Your task to perform on an android device: Open accessibility settings Image 0: 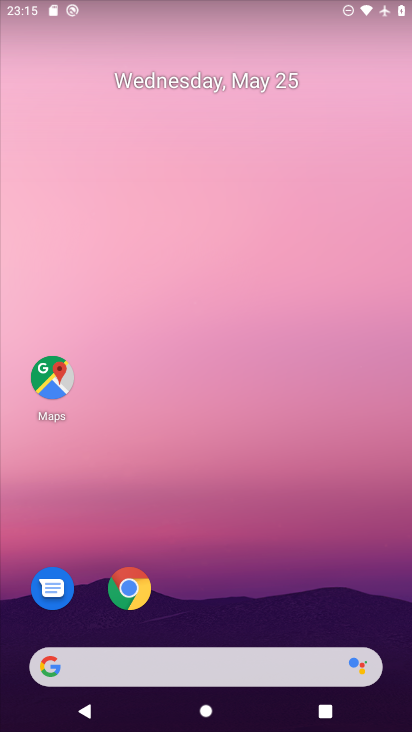
Step 0: drag from (285, 579) to (265, 195)
Your task to perform on an android device: Open accessibility settings Image 1: 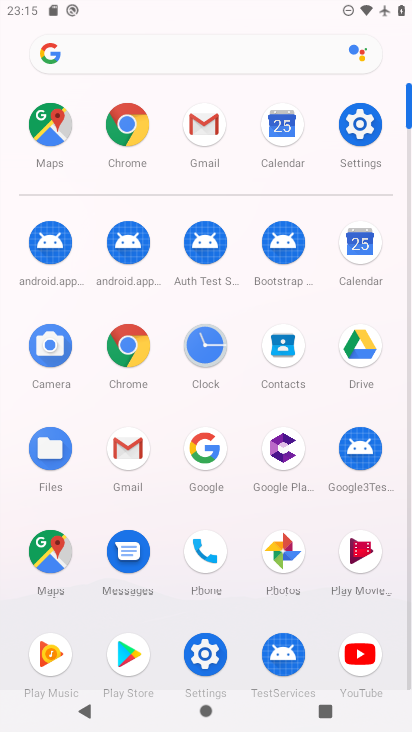
Step 1: click (348, 116)
Your task to perform on an android device: Open accessibility settings Image 2: 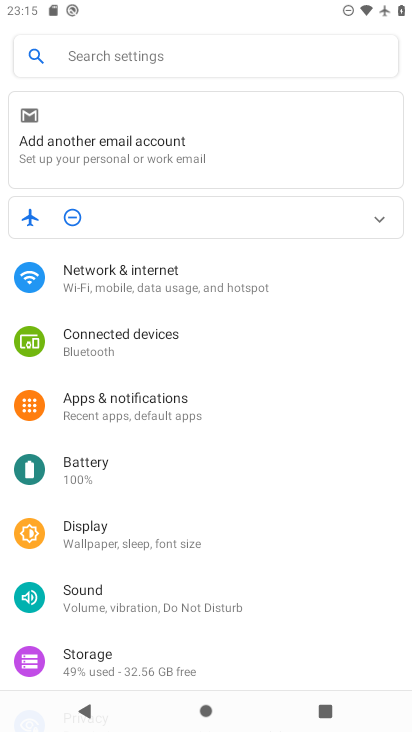
Step 2: drag from (197, 630) to (285, 52)
Your task to perform on an android device: Open accessibility settings Image 3: 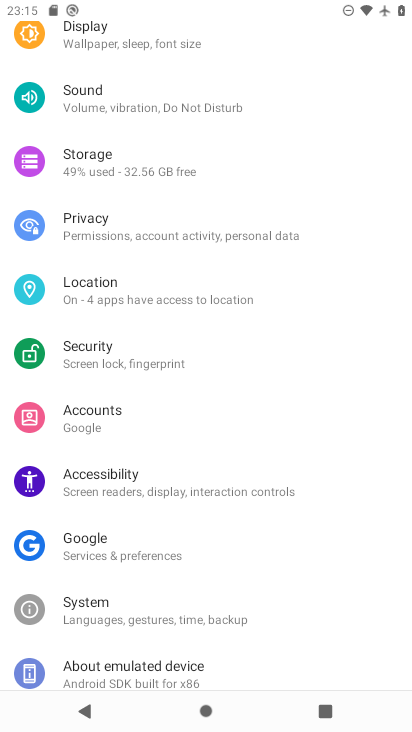
Step 3: click (175, 480)
Your task to perform on an android device: Open accessibility settings Image 4: 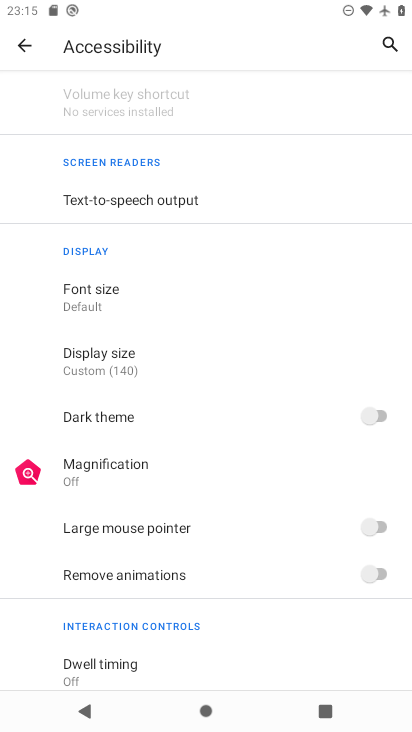
Step 4: task complete